Your task to perform on an android device: change the clock display to show seconds Image 0: 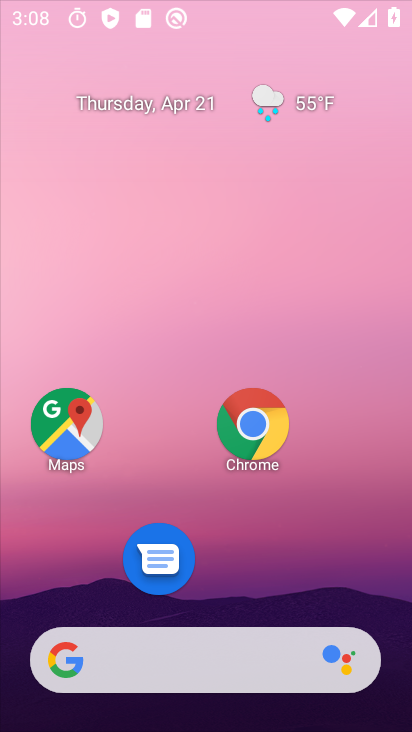
Step 0: drag from (235, 275) to (242, 175)
Your task to perform on an android device: change the clock display to show seconds Image 1: 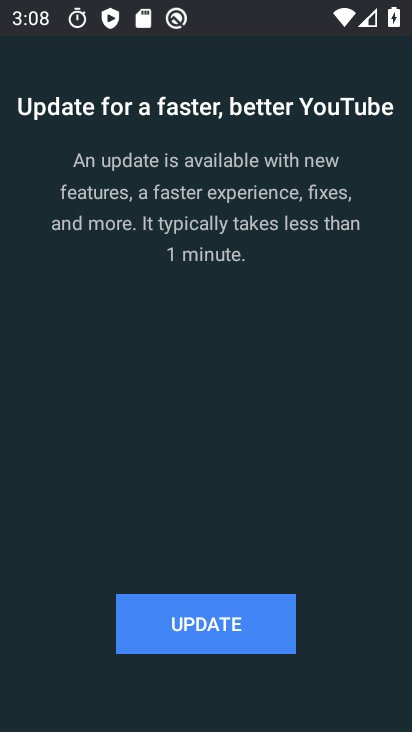
Step 1: press home button
Your task to perform on an android device: change the clock display to show seconds Image 2: 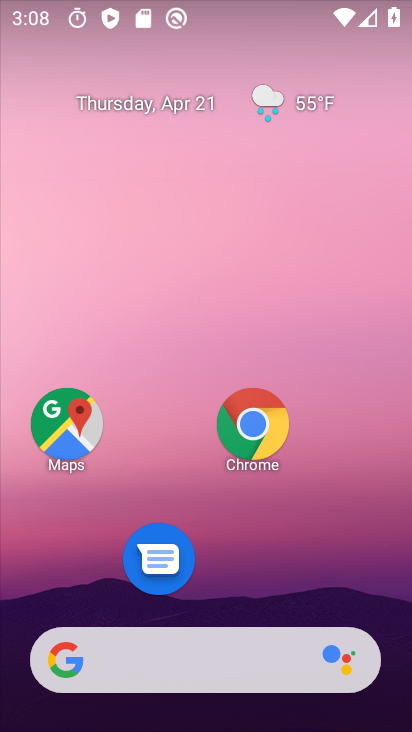
Step 2: drag from (262, 557) to (213, 169)
Your task to perform on an android device: change the clock display to show seconds Image 3: 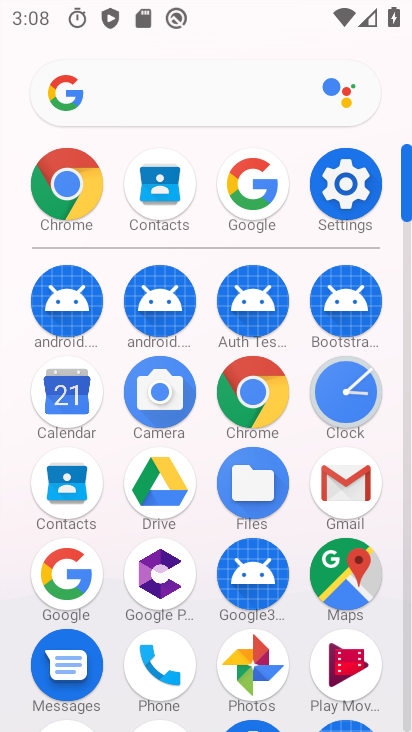
Step 3: click (349, 399)
Your task to perform on an android device: change the clock display to show seconds Image 4: 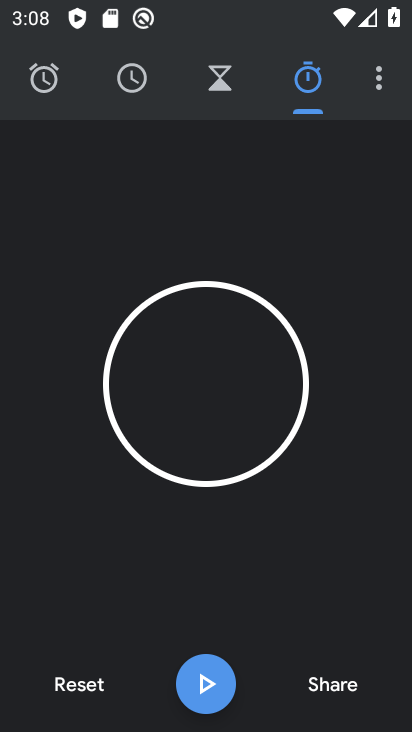
Step 4: click (370, 81)
Your task to perform on an android device: change the clock display to show seconds Image 5: 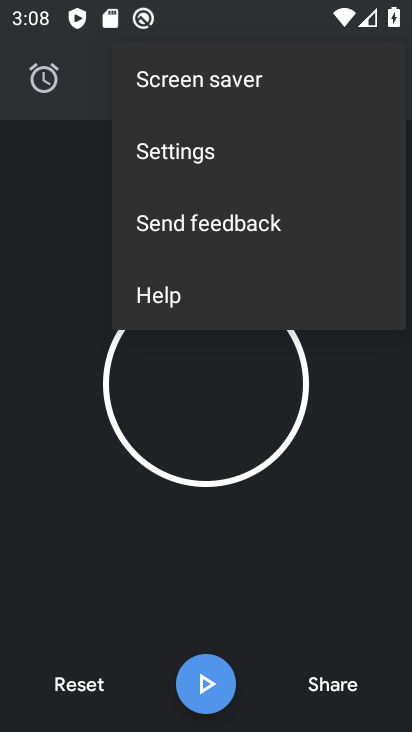
Step 5: click (186, 151)
Your task to perform on an android device: change the clock display to show seconds Image 6: 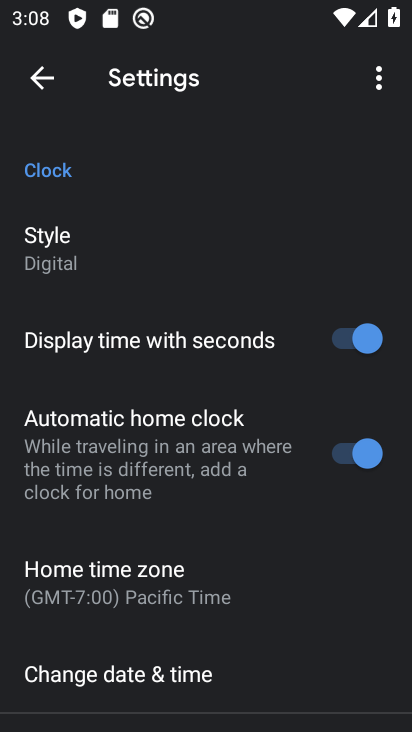
Step 6: click (365, 339)
Your task to perform on an android device: change the clock display to show seconds Image 7: 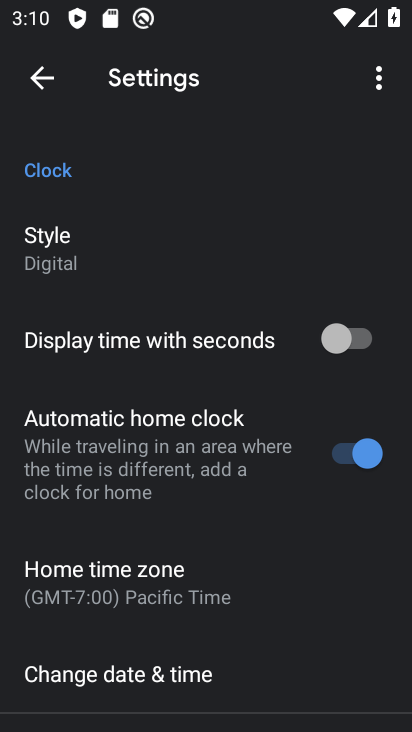
Step 7: task complete